Your task to perform on an android device: Go to eBay Image 0: 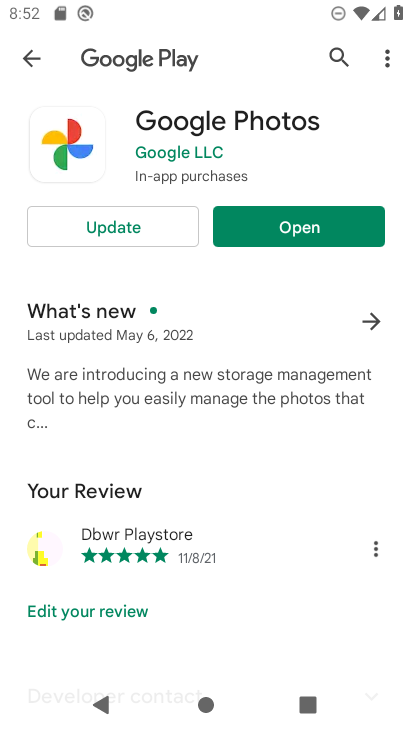
Step 0: press home button
Your task to perform on an android device: Go to eBay Image 1: 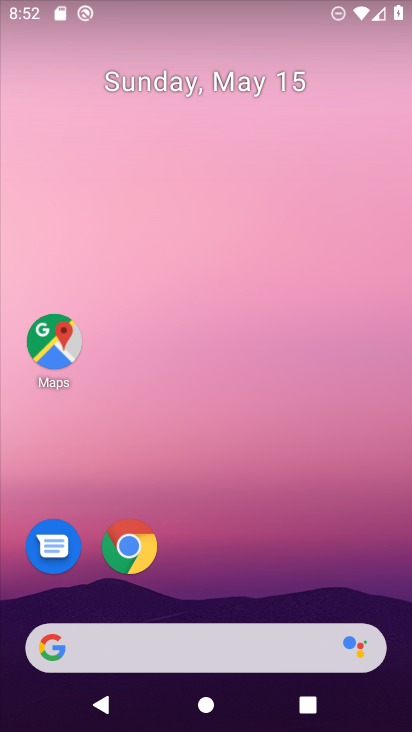
Step 1: click (239, 650)
Your task to perform on an android device: Go to eBay Image 2: 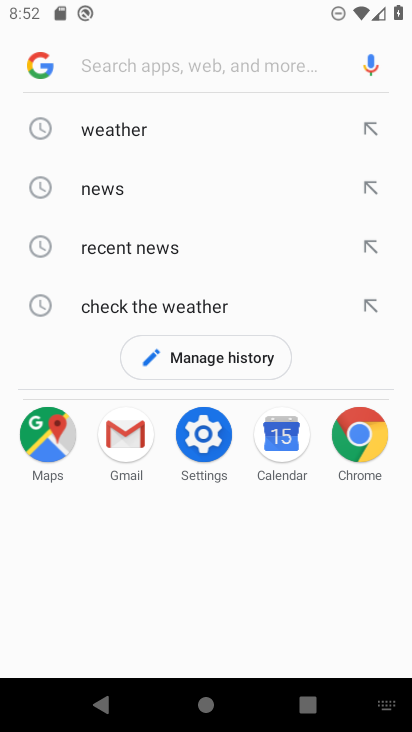
Step 2: type "ebay"
Your task to perform on an android device: Go to eBay Image 3: 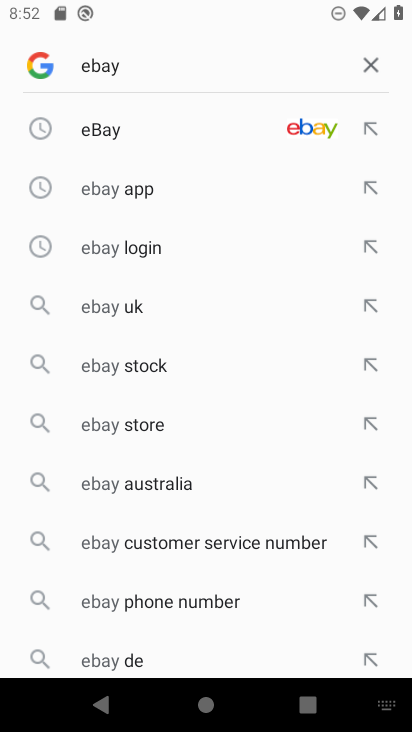
Step 3: click (103, 133)
Your task to perform on an android device: Go to eBay Image 4: 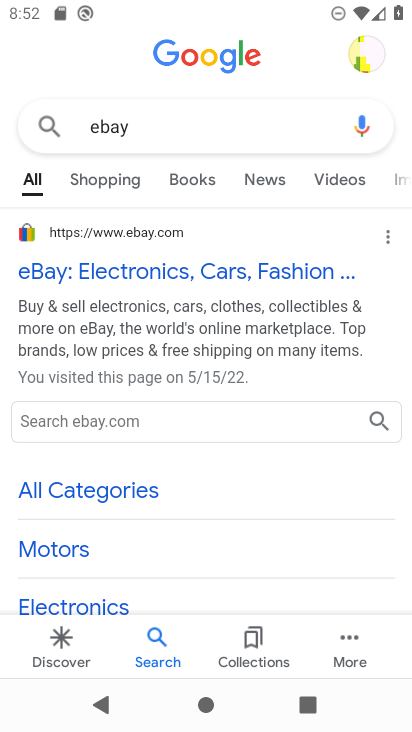
Step 4: click (53, 268)
Your task to perform on an android device: Go to eBay Image 5: 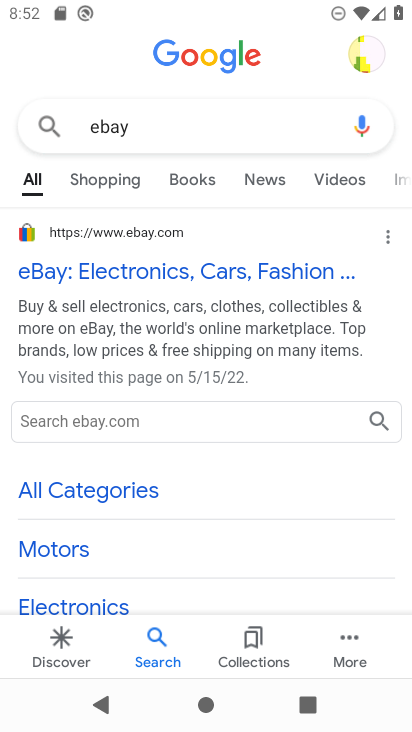
Step 5: click (48, 271)
Your task to perform on an android device: Go to eBay Image 6: 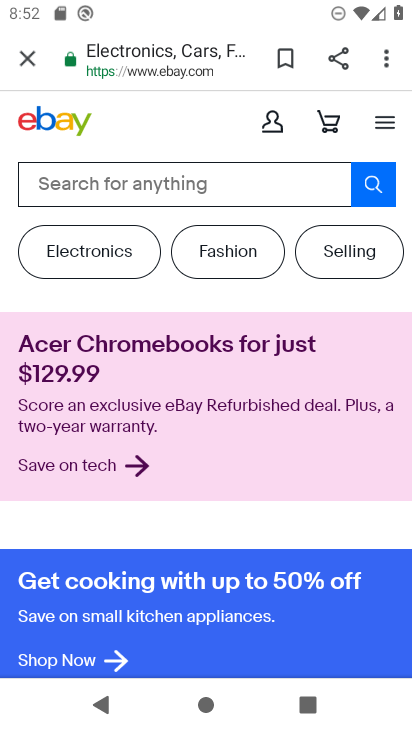
Step 6: task complete